Your task to perform on an android device: Turn off the flashlight Image 0: 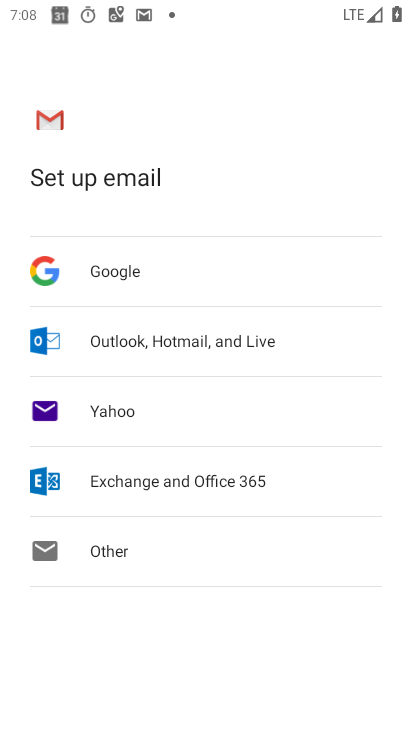
Step 0: press home button
Your task to perform on an android device: Turn off the flashlight Image 1: 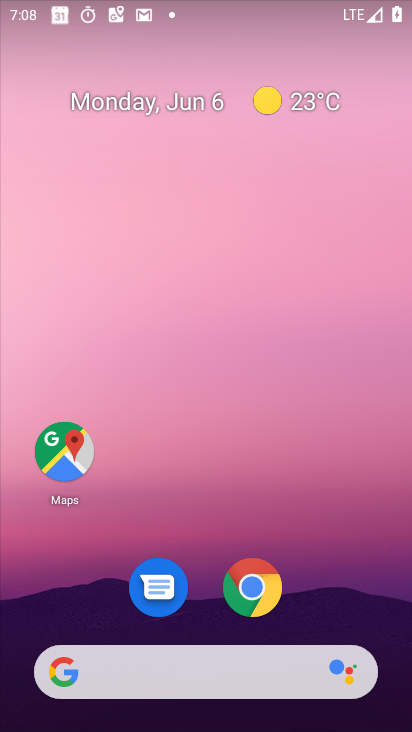
Step 1: drag from (386, 657) to (320, 58)
Your task to perform on an android device: Turn off the flashlight Image 2: 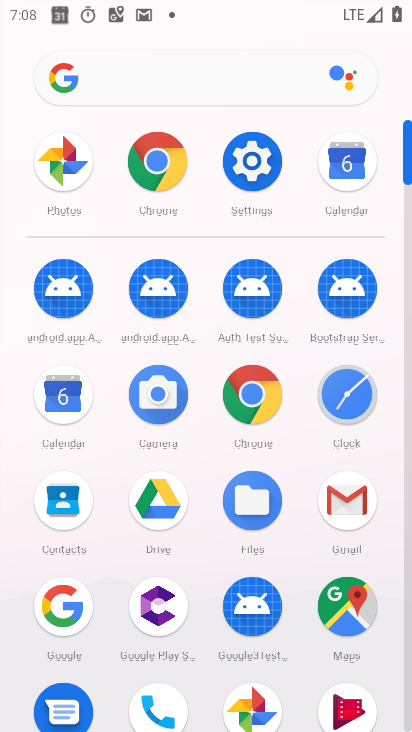
Step 2: click (256, 150)
Your task to perform on an android device: Turn off the flashlight Image 3: 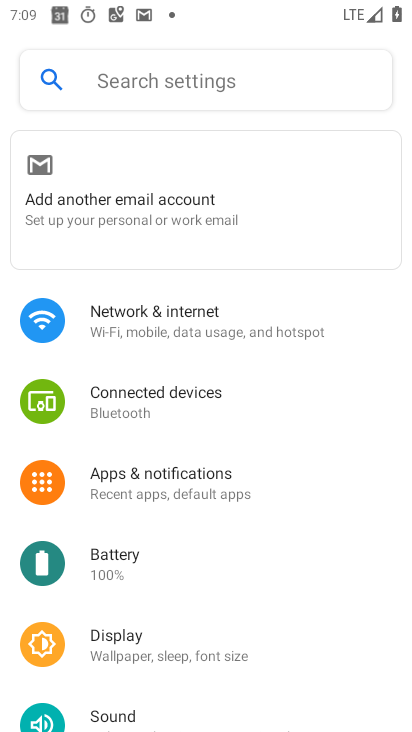
Step 3: task complete